Your task to perform on an android device: Open Maps and search for coffee Image 0: 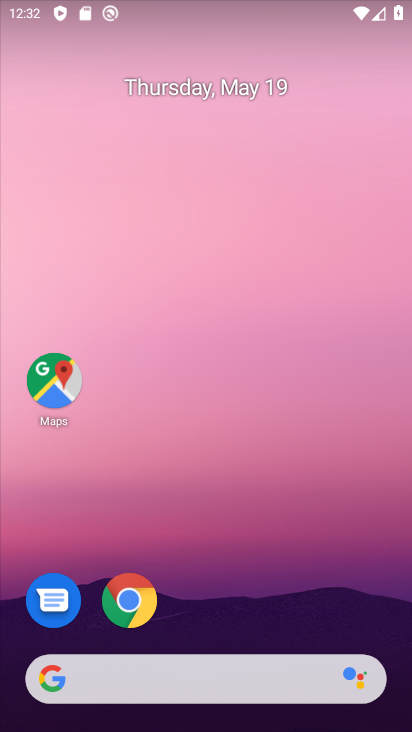
Step 0: click (143, 608)
Your task to perform on an android device: Open Maps and search for coffee Image 1: 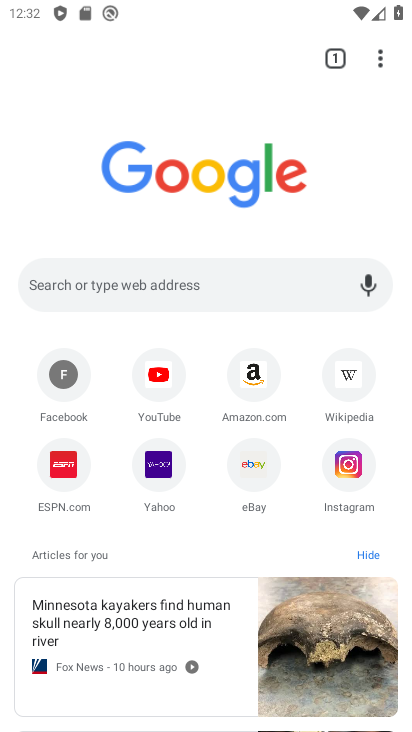
Step 1: press home button
Your task to perform on an android device: Open Maps and search for coffee Image 2: 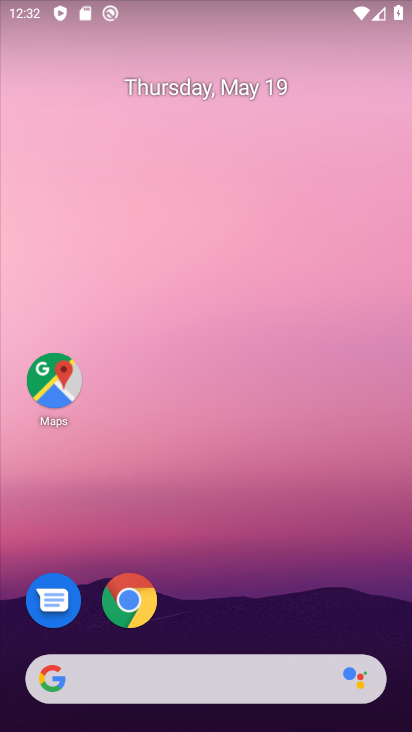
Step 2: drag from (303, 583) to (165, 114)
Your task to perform on an android device: Open Maps and search for coffee Image 3: 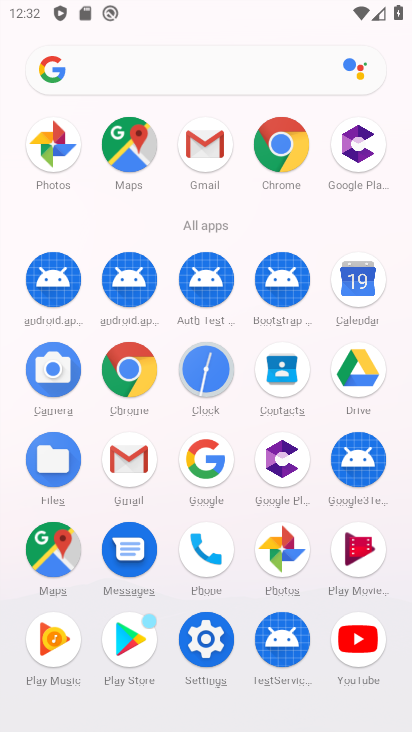
Step 3: click (128, 187)
Your task to perform on an android device: Open Maps and search for coffee Image 4: 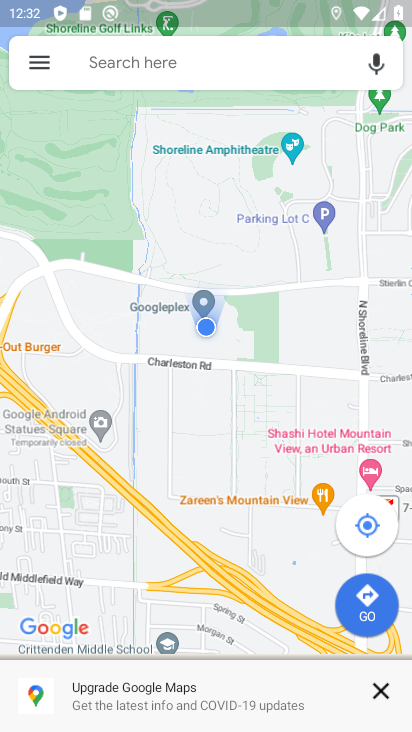
Step 4: click (194, 67)
Your task to perform on an android device: Open Maps and search for coffee Image 5: 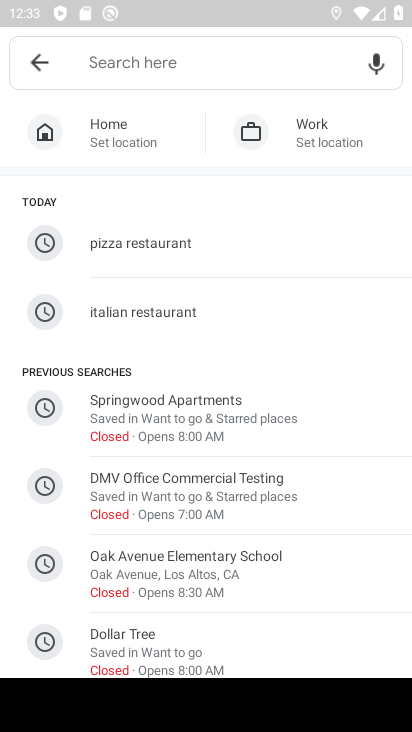
Step 5: type "coffee"
Your task to perform on an android device: Open Maps and search for coffee Image 6: 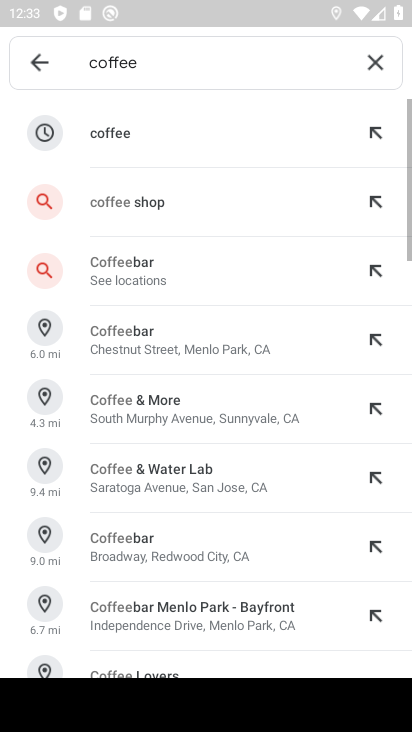
Step 6: click (176, 137)
Your task to perform on an android device: Open Maps and search for coffee Image 7: 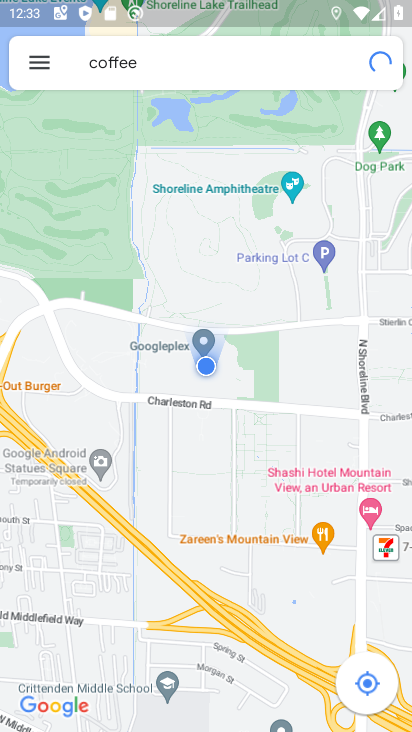
Step 7: task complete